Your task to perform on an android device: check battery use Image 0: 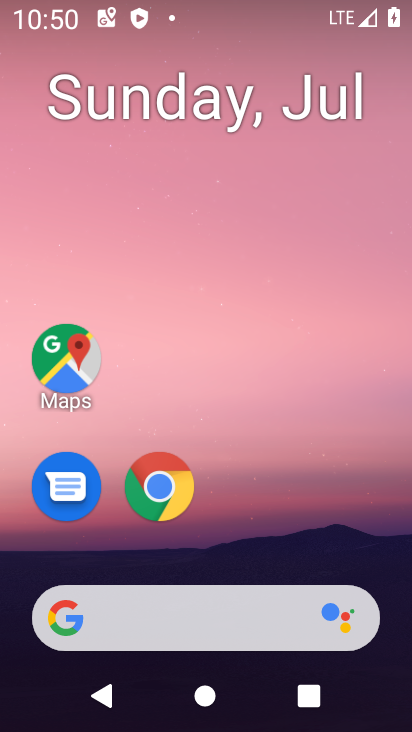
Step 0: press home button
Your task to perform on an android device: check battery use Image 1: 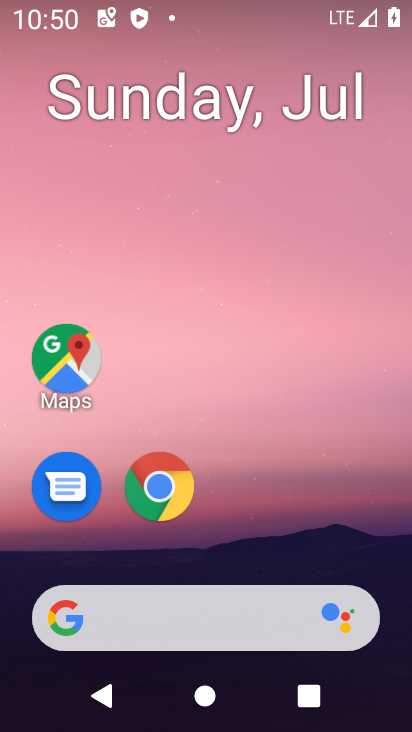
Step 1: drag from (361, 526) to (396, 84)
Your task to perform on an android device: check battery use Image 2: 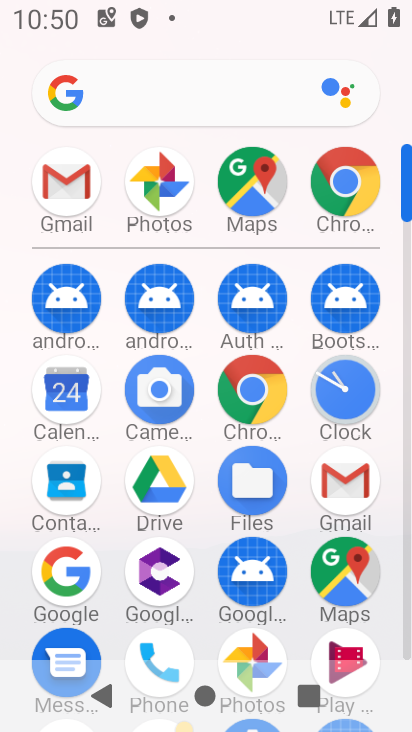
Step 2: drag from (383, 457) to (389, 178)
Your task to perform on an android device: check battery use Image 3: 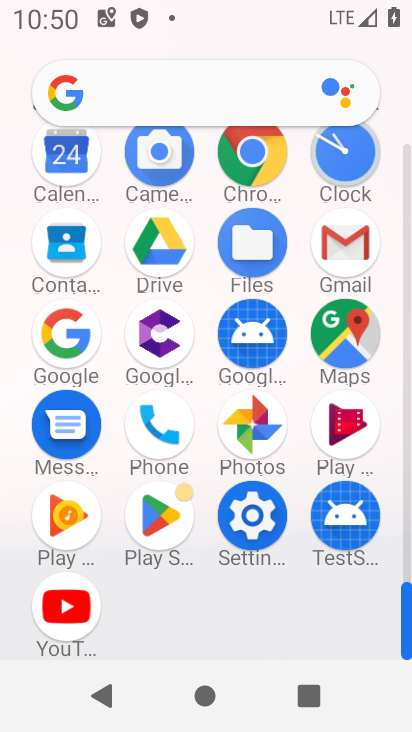
Step 3: click (256, 522)
Your task to perform on an android device: check battery use Image 4: 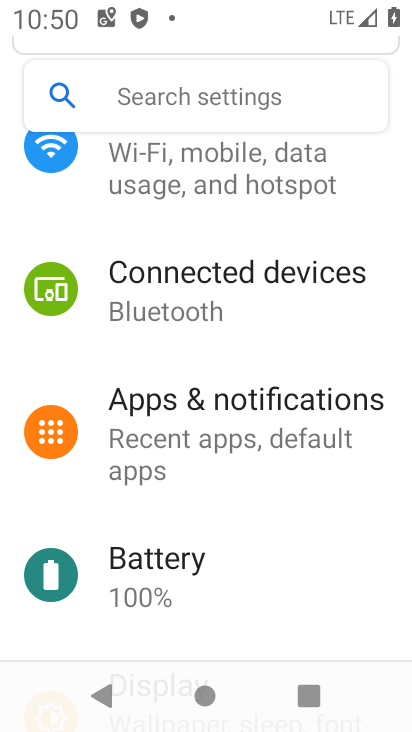
Step 4: drag from (377, 251) to (392, 388)
Your task to perform on an android device: check battery use Image 5: 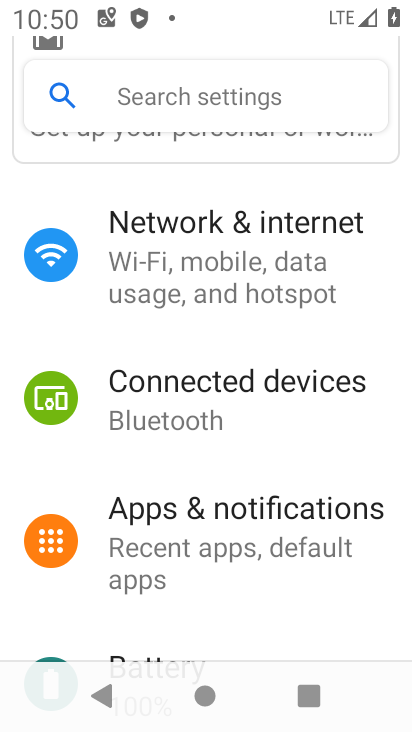
Step 5: drag from (364, 229) to (377, 409)
Your task to perform on an android device: check battery use Image 6: 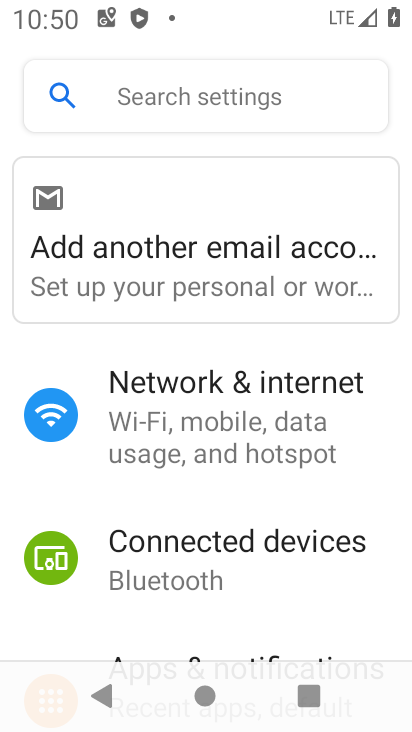
Step 6: drag from (336, 588) to (337, 413)
Your task to perform on an android device: check battery use Image 7: 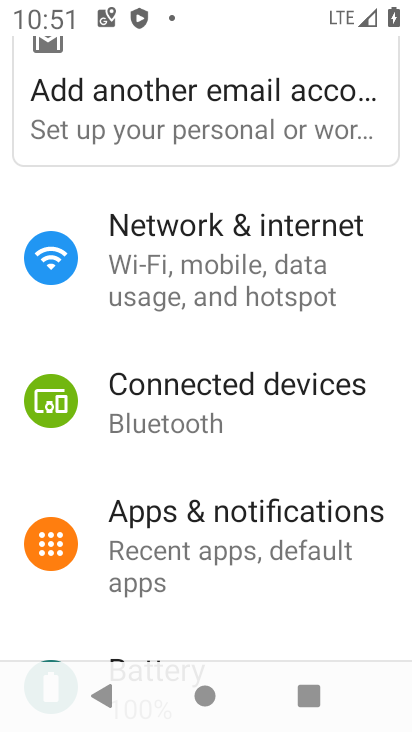
Step 7: drag from (301, 561) to (297, 470)
Your task to perform on an android device: check battery use Image 8: 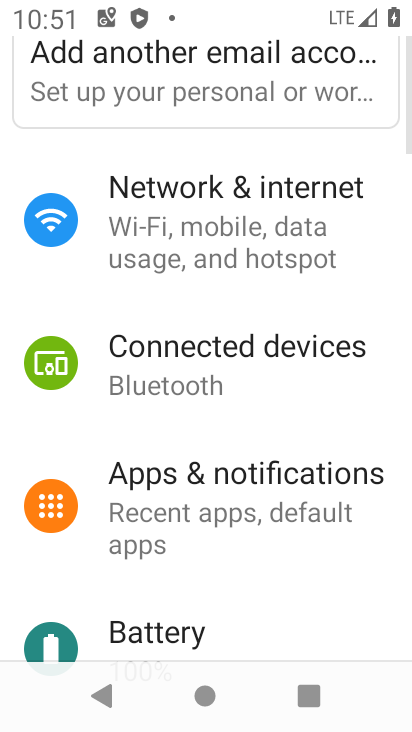
Step 8: drag from (279, 602) to (279, 457)
Your task to perform on an android device: check battery use Image 9: 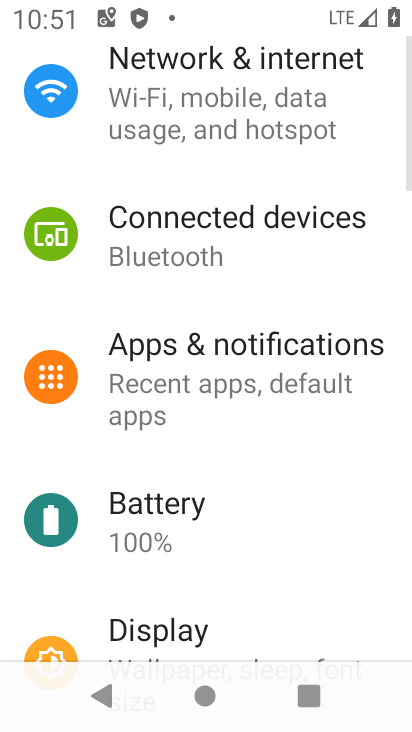
Step 9: click (238, 546)
Your task to perform on an android device: check battery use Image 10: 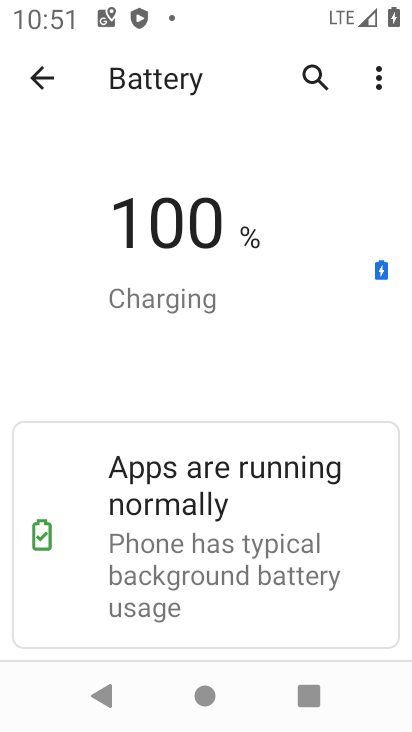
Step 10: click (380, 85)
Your task to perform on an android device: check battery use Image 11: 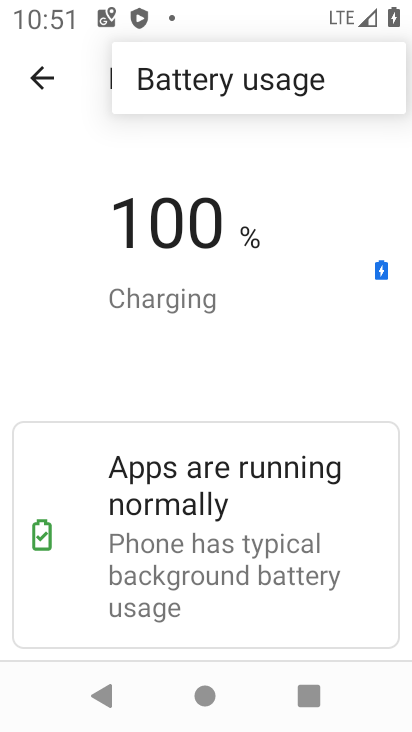
Step 11: click (331, 85)
Your task to perform on an android device: check battery use Image 12: 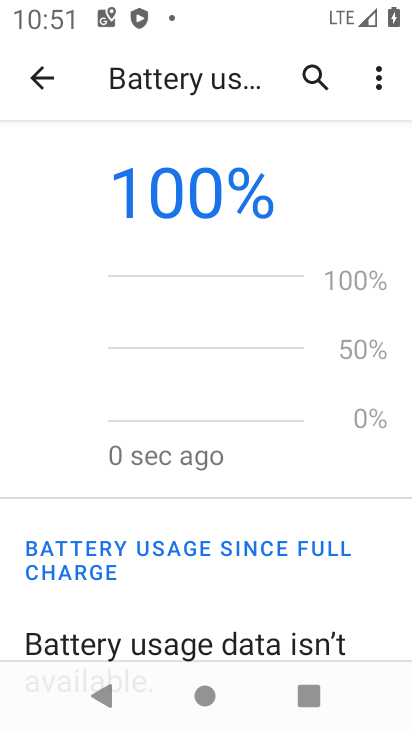
Step 12: task complete